Your task to perform on an android device: change keyboard looks Image 0: 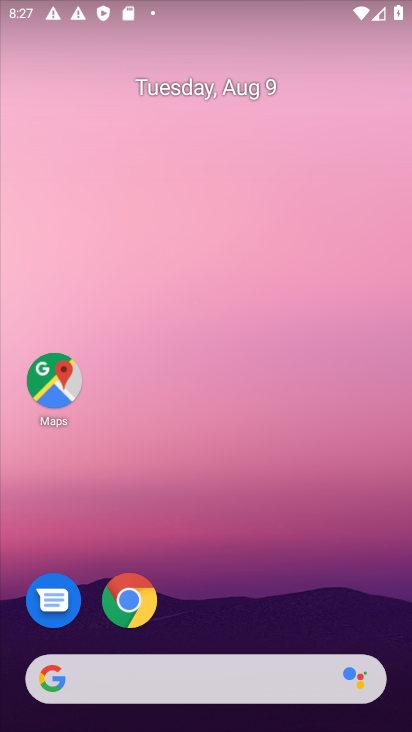
Step 0: drag from (247, 636) to (227, 89)
Your task to perform on an android device: change keyboard looks Image 1: 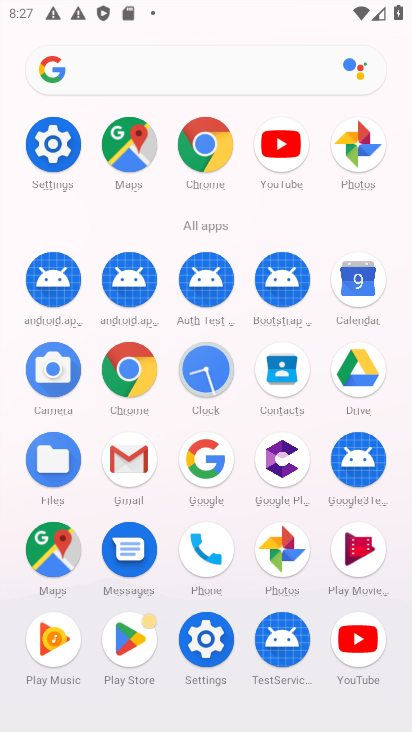
Step 1: click (51, 148)
Your task to perform on an android device: change keyboard looks Image 2: 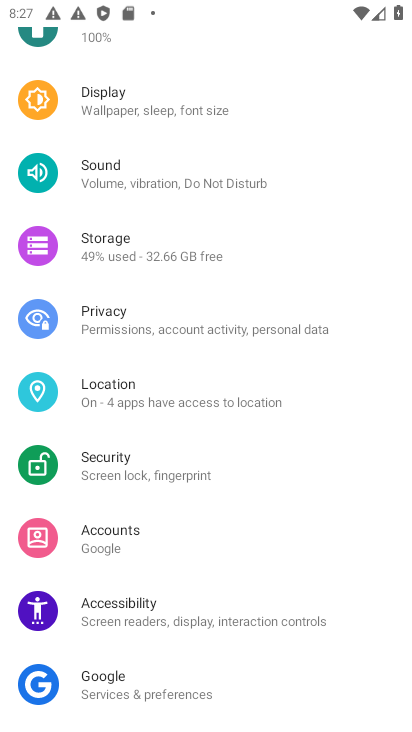
Step 2: drag from (326, 694) to (317, 7)
Your task to perform on an android device: change keyboard looks Image 3: 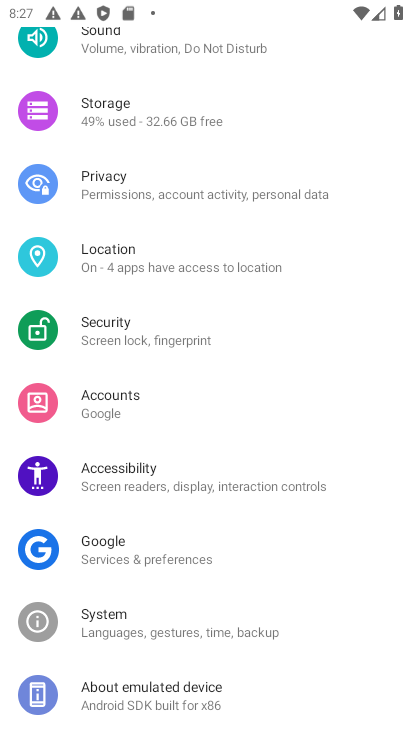
Step 3: click (107, 640)
Your task to perform on an android device: change keyboard looks Image 4: 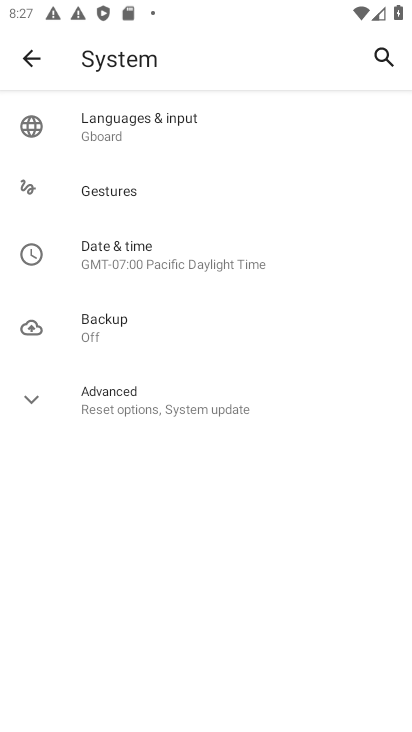
Step 4: click (122, 122)
Your task to perform on an android device: change keyboard looks Image 5: 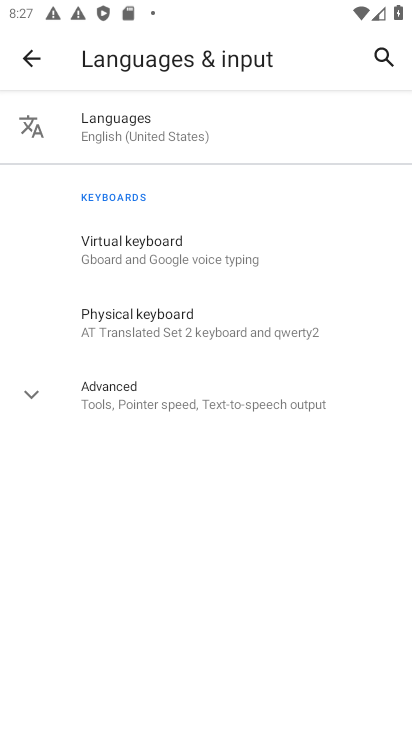
Step 5: click (143, 262)
Your task to perform on an android device: change keyboard looks Image 6: 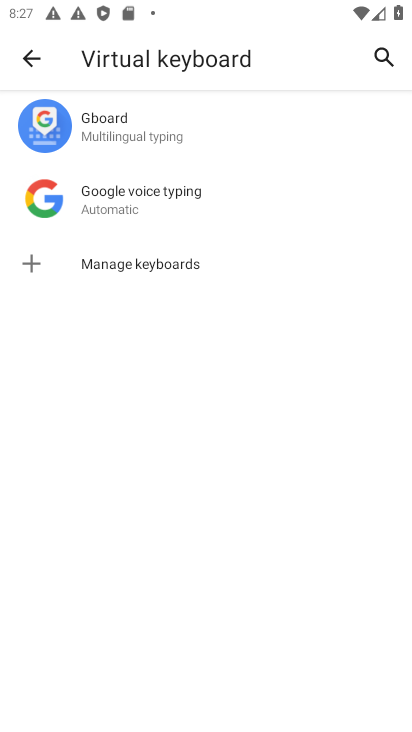
Step 6: click (101, 137)
Your task to perform on an android device: change keyboard looks Image 7: 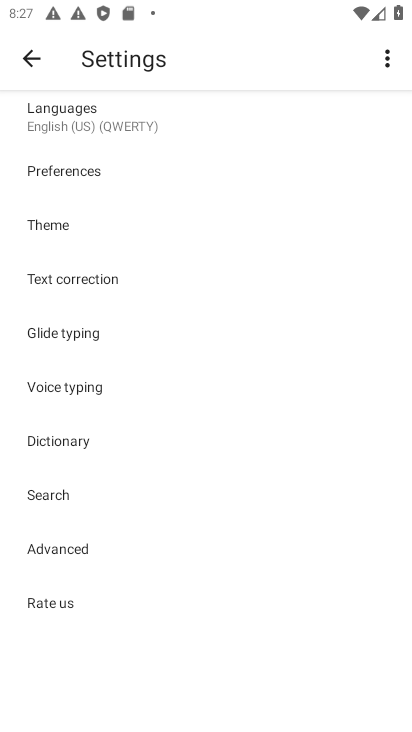
Step 7: click (43, 231)
Your task to perform on an android device: change keyboard looks Image 8: 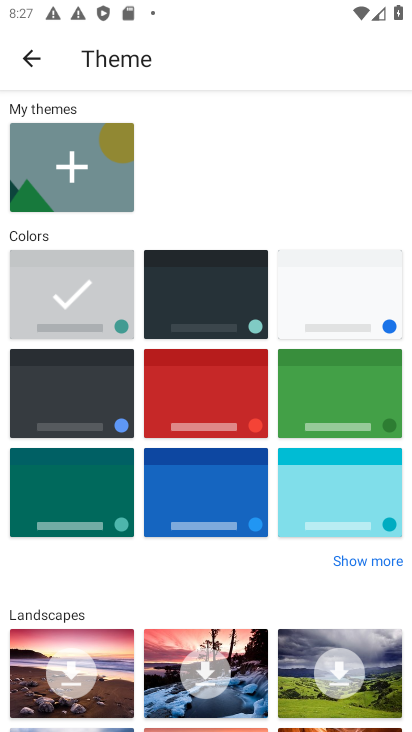
Step 8: click (192, 526)
Your task to perform on an android device: change keyboard looks Image 9: 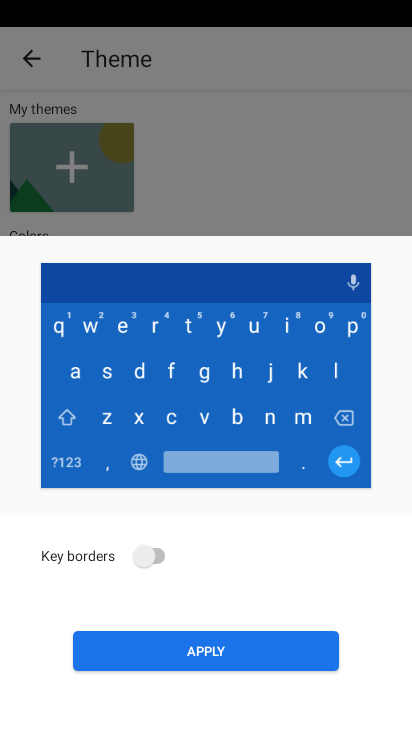
Step 9: click (148, 656)
Your task to perform on an android device: change keyboard looks Image 10: 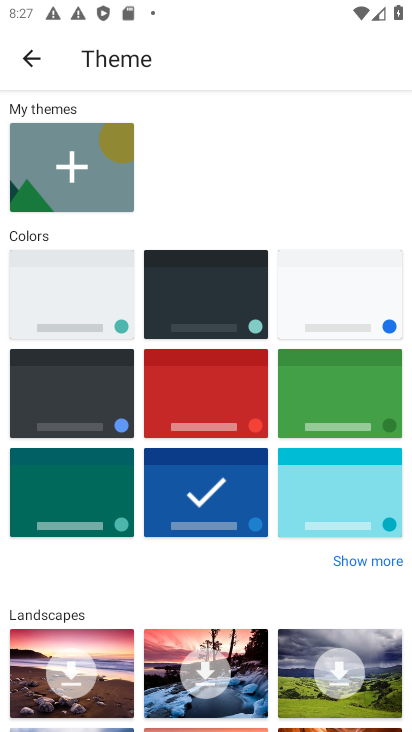
Step 10: task complete